Your task to perform on an android device: toggle translation in the chrome app Image 0: 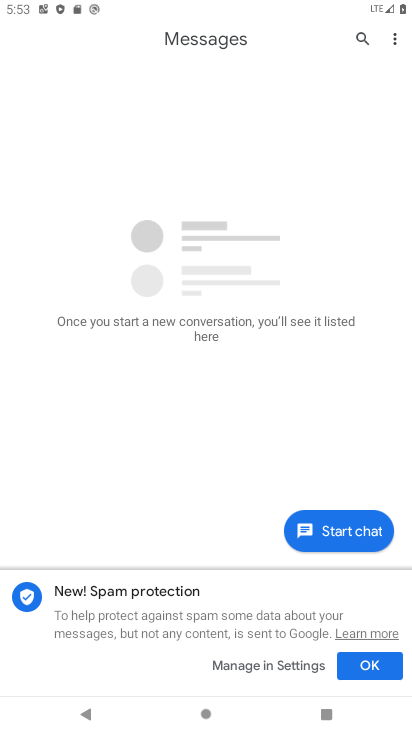
Step 0: press home button
Your task to perform on an android device: toggle translation in the chrome app Image 1: 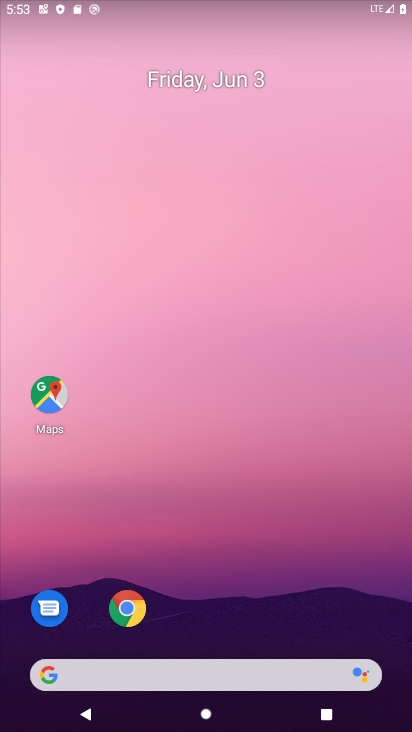
Step 1: click (126, 610)
Your task to perform on an android device: toggle translation in the chrome app Image 2: 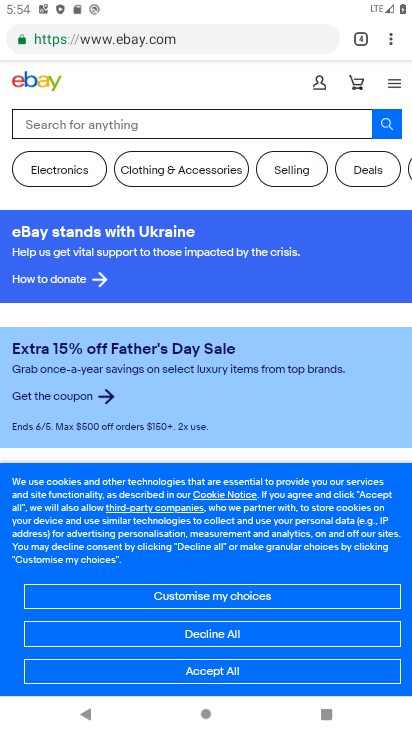
Step 2: click (394, 35)
Your task to perform on an android device: toggle translation in the chrome app Image 3: 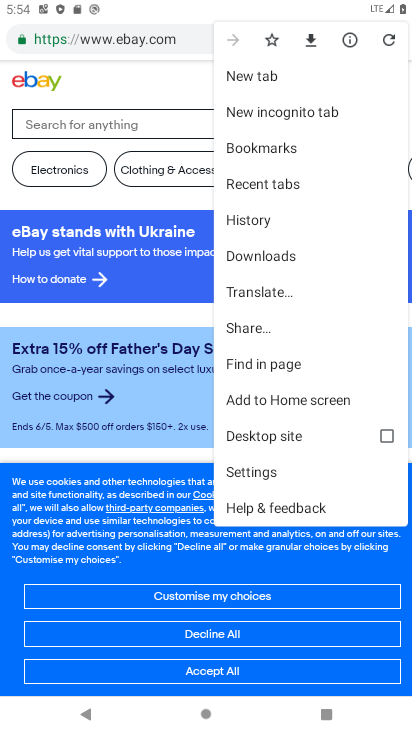
Step 3: click (260, 288)
Your task to perform on an android device: toggle translation in the chrome app Image 4: 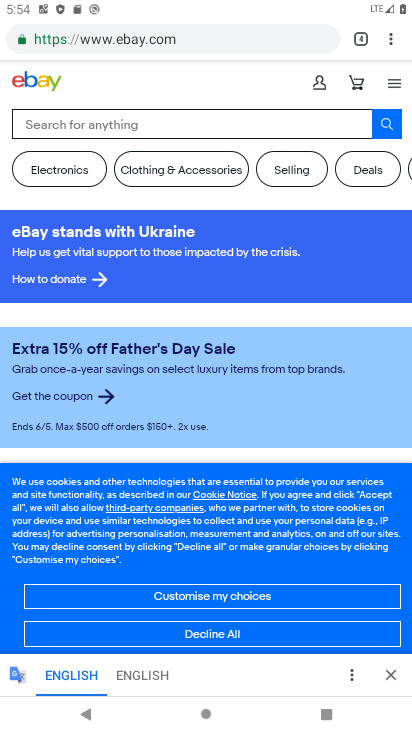
Step 4: click (348, 674)
Your task to perform on an android device: toggle translation in the chrome app Image 5: 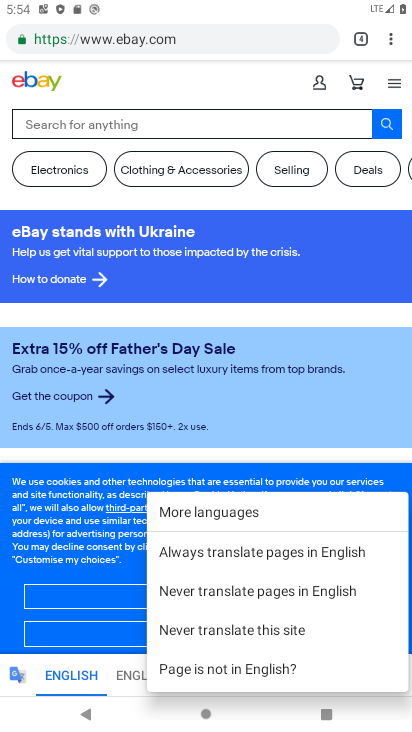
Step 5: click (303, 592)
Your task to perform on an android device: toggle translation in the chrome app Image 6: 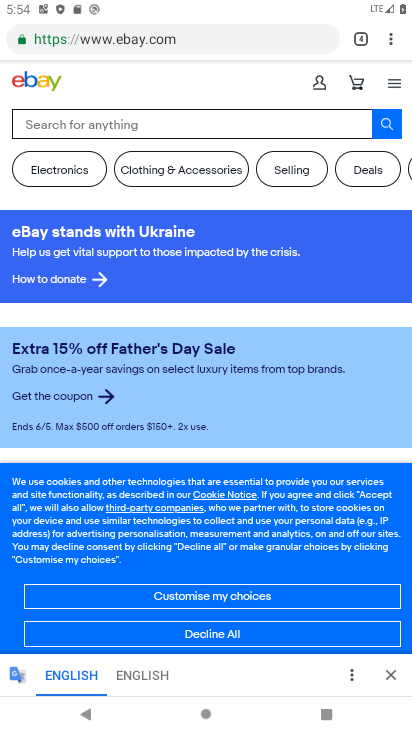
Step 6: task complete